Your task to perform on an android device: turn off translation in the chrome app Image 0: 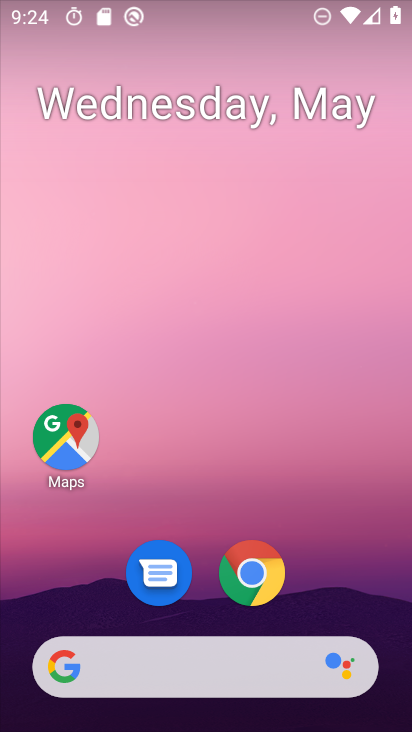
Step 0: click (261, 580)
Your task to perform on an android device: turn off translation in the chrome app Image 1: 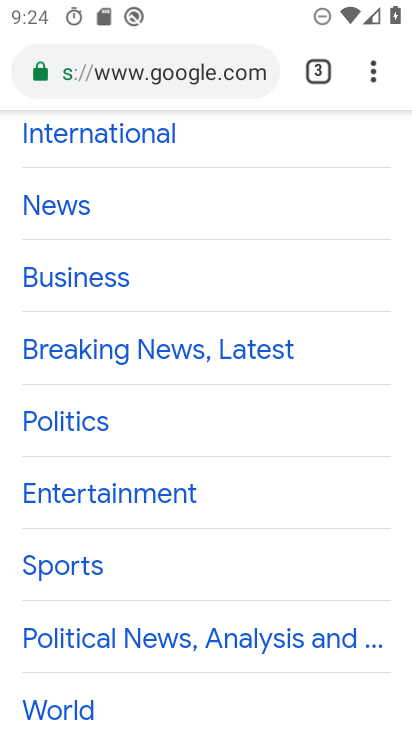
Step 1: click (375, 60)
Your task to perform on an android device: turn off translation in the chrome app Image 2: 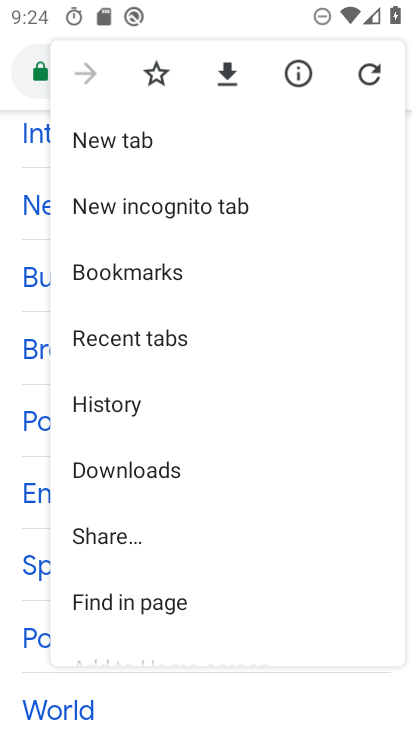
Step 2: drag from (266, 576) to (259, 313)
Your task to perform on an android device: turn off translation in the chrome app Image 3: 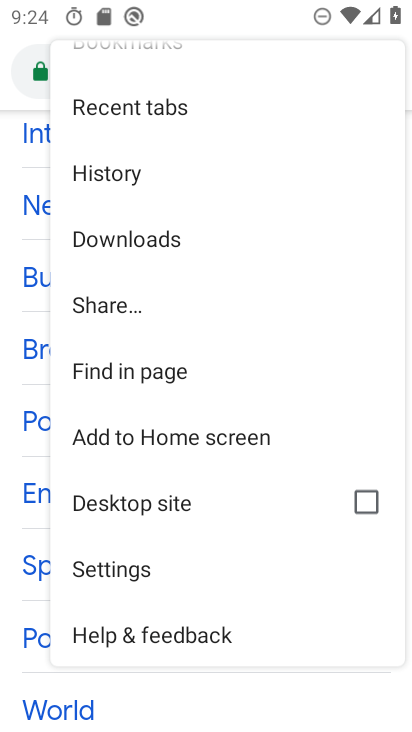
Step 3: click (109, 557)
Your task to perform on an android device: turn off translation in the chrome app Image 4: 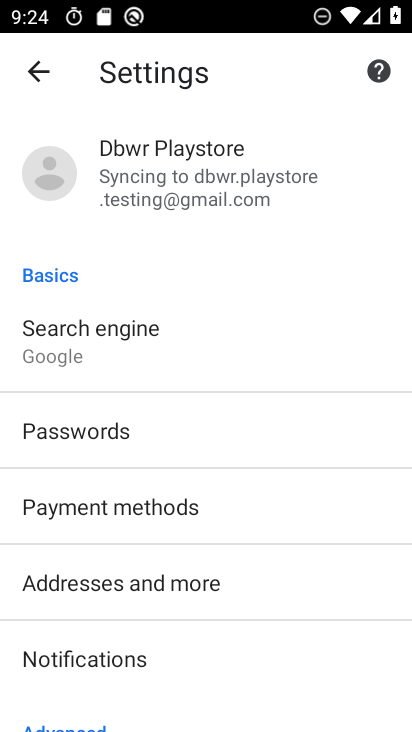
Step 4: drag from (250, 694) to (266, 370)
Your task to perform on an android device: turn off translation in the chrome app Image 5: 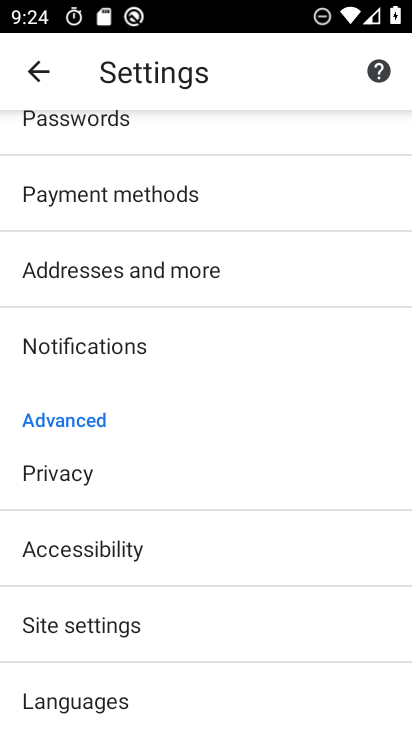
Step 5: drag from (265, 671) to (265, 352)
Your task to perform on an android device: turn off translation in the chrome app Image 6: 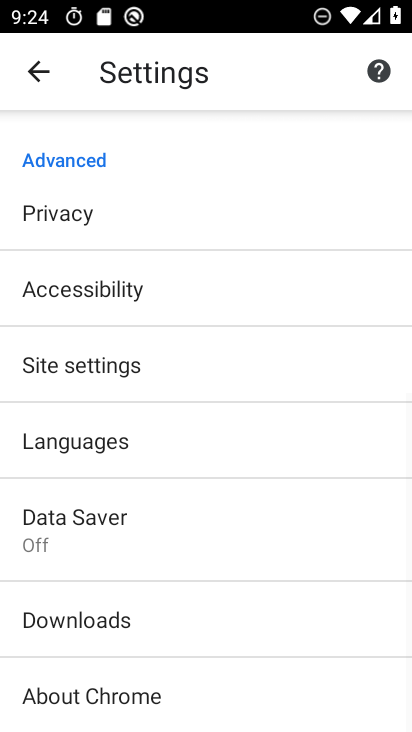
Step 6: click (70, 440)
Your task to perform on an android device: turn off translation in the chrome app Image 7: 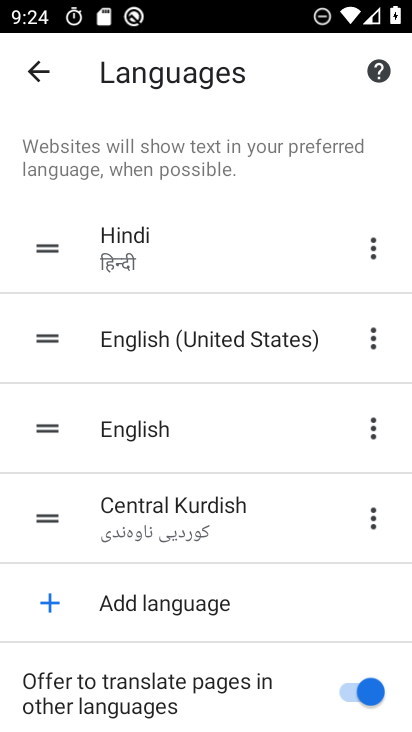
Step 7: click (347, 693)
Your task to perform on an android device: turn off translation in the chrome app Image 8: 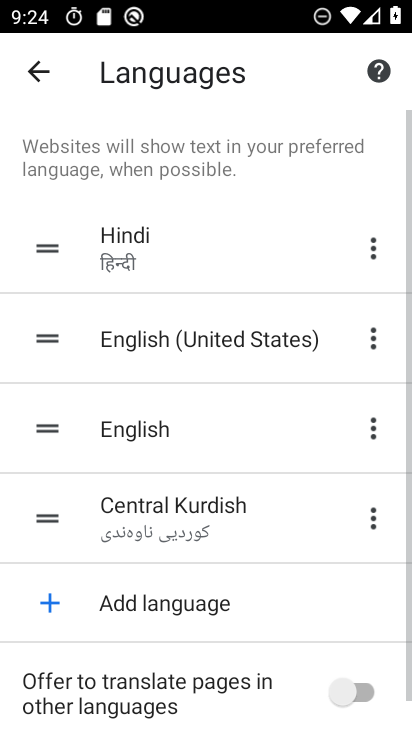
Step 8: task complete